Your task to perform on an android device: Search for Mexican restaurants on Maps Image 0: 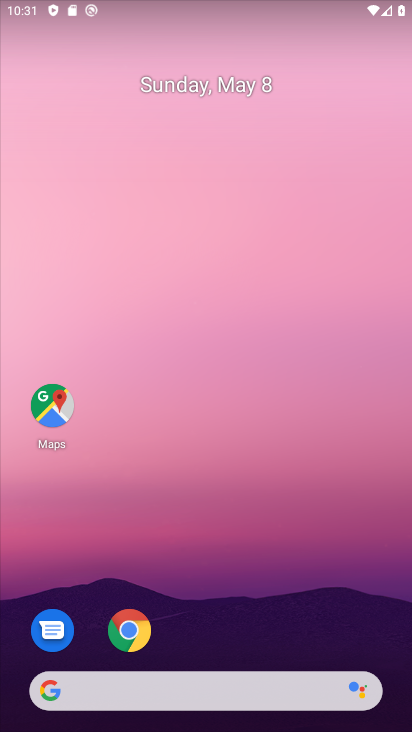
Step 0: click (69, 397)
Your task to perform on an android device: Search for Mexican restaurants on Maps Image 1: 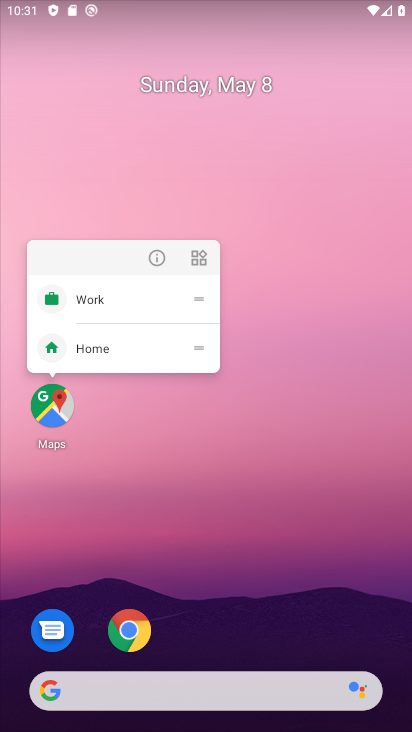
Step 1: click (69, 397)
Your task to perform on an android device: Search for Mexican restaurants on Maps Image 2: 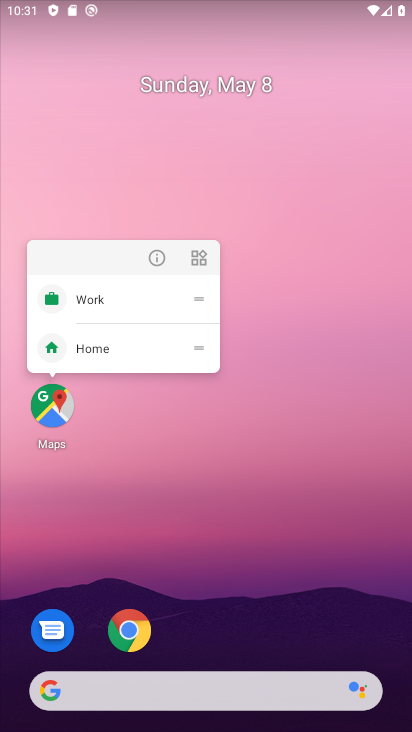
Step 2: click (69, 397)
Your task to perform on an android device: Search for Mexican restaurants on Maps Image 3: 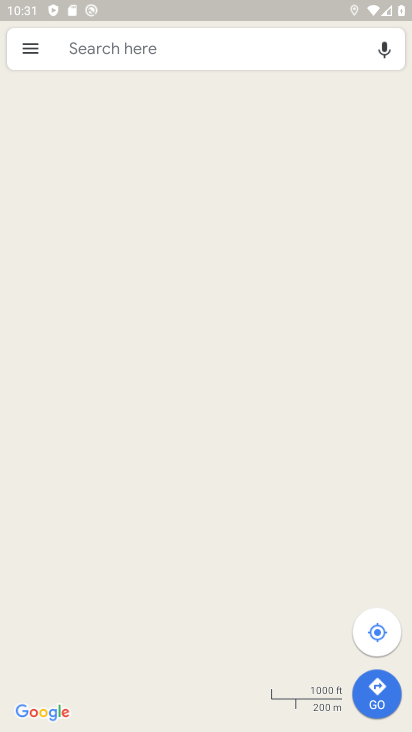
Step 3: click (173, 52)
Your task to perform on an android device: Search for Mexican restaurants on Maps Image 4: 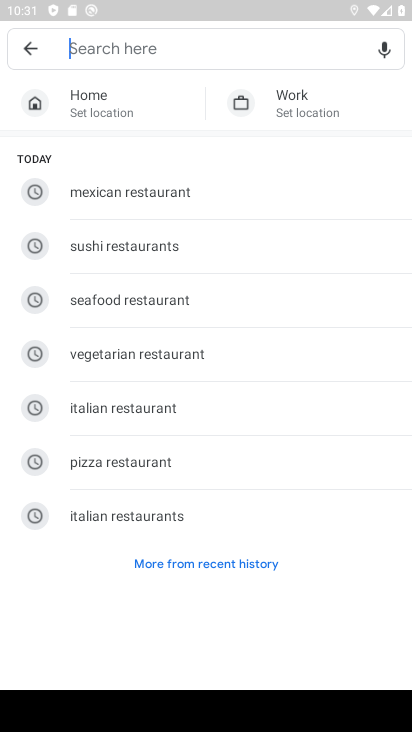
Step 4: type "Mexican restaurants "
Your task to perform on an android device: Search for Mexican restaurants on Maps Image 5: 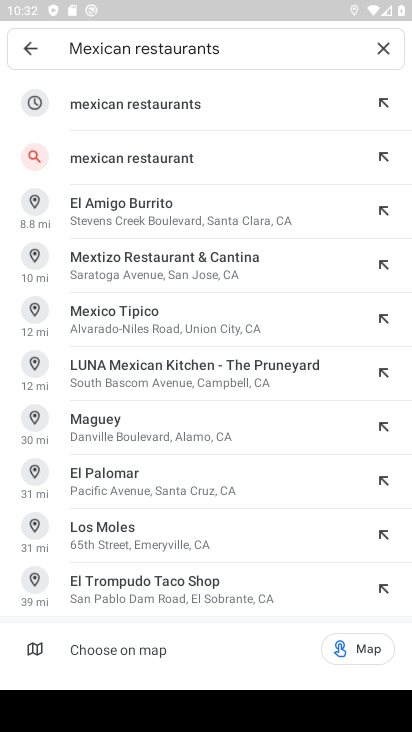
Step 5: click (240, 104)
Your task to perform on an android device: Search for Mexican restaurants on Maps Image 6: 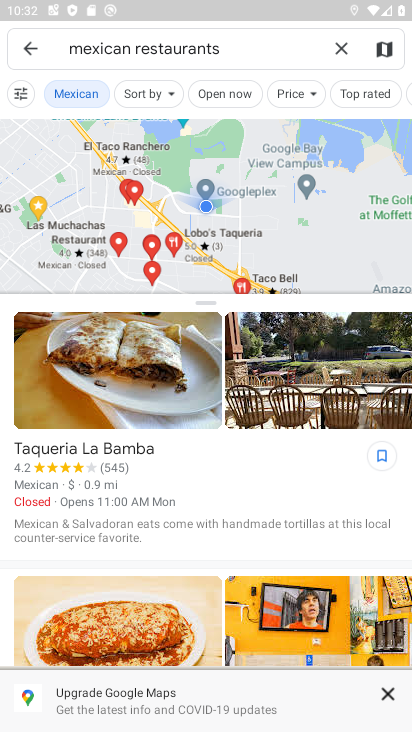
Step 6: task complete